Your task to perform on an android device: toggle airplane mode Image 0: 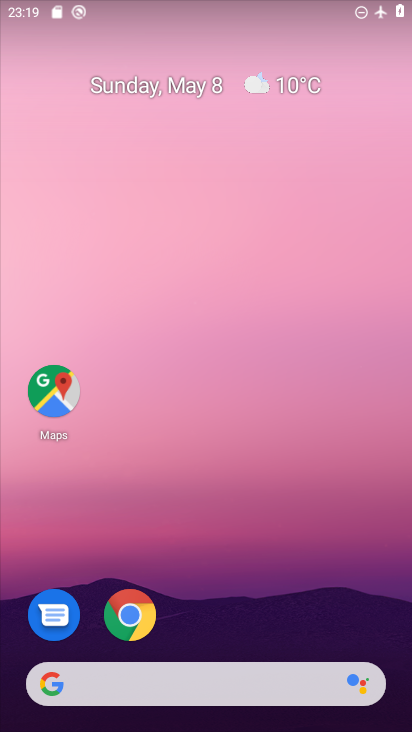
Step 0: drag from (280, 631) to (285, 165)
Your task to perform on an android device: toggle airplane mode Image 1: 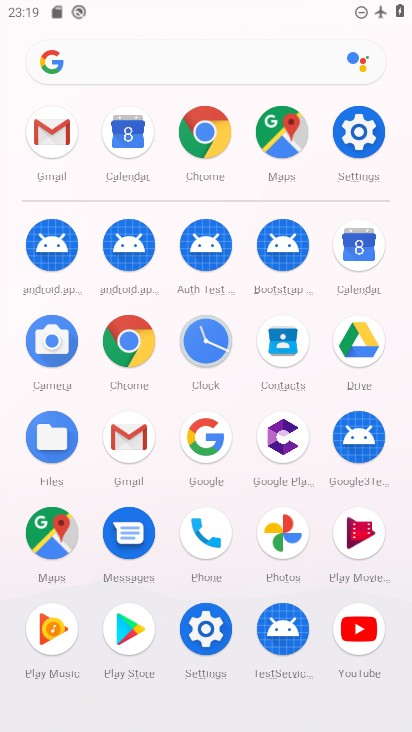
Step 1: click (355, 131)
Your task to perform on an android device: toggle airplane mode Image 2: 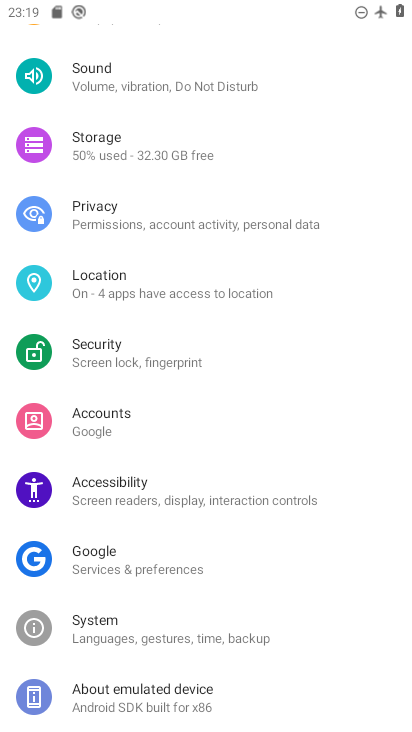
Step 2: drag from (161, 119) to (203, 676)
Your task to perform on an android device: toggle airplane mode Image 3: 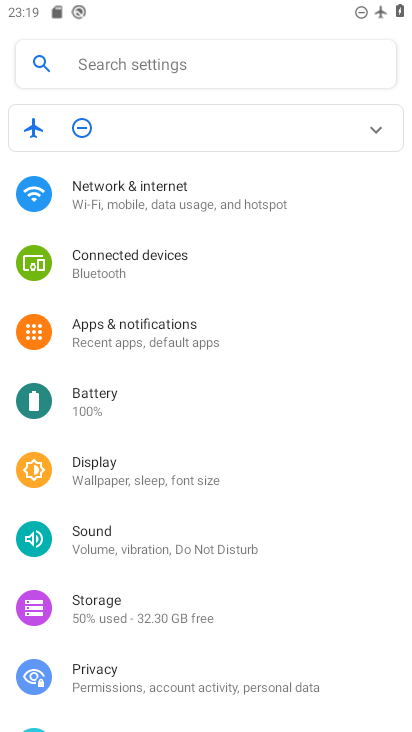
Step 3: click (206, 204)
Your task to perform on an android device: toggle airplane mode Image 4: 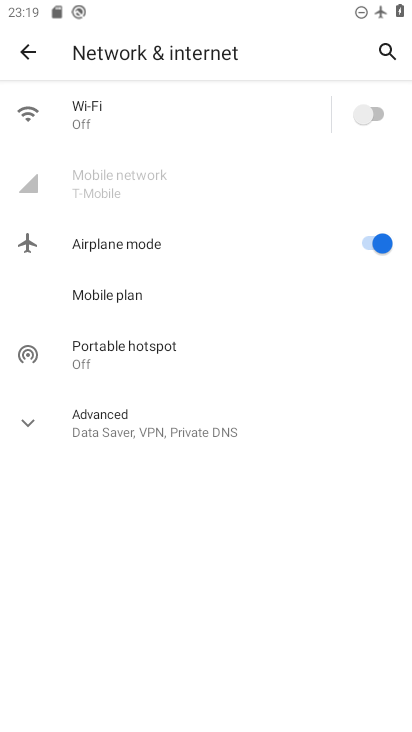
Step 4: click (358, 239)
Your task to perform on an android device: toggle airplane mode Image 5: 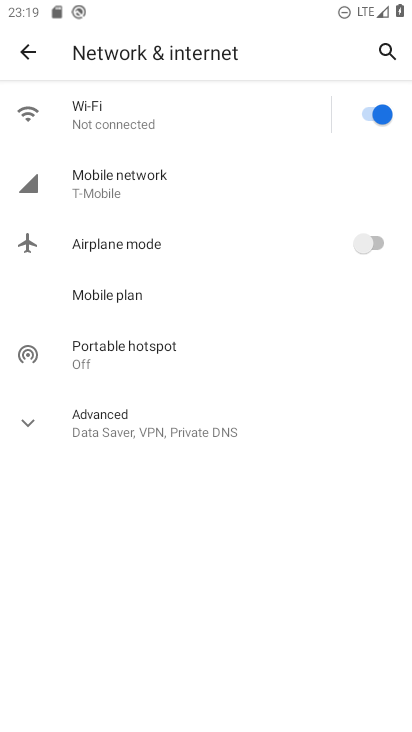
Step 5: task complete